Your task to perform on an android device: open app "VLC for Android" (install if not already installed) Image 0: 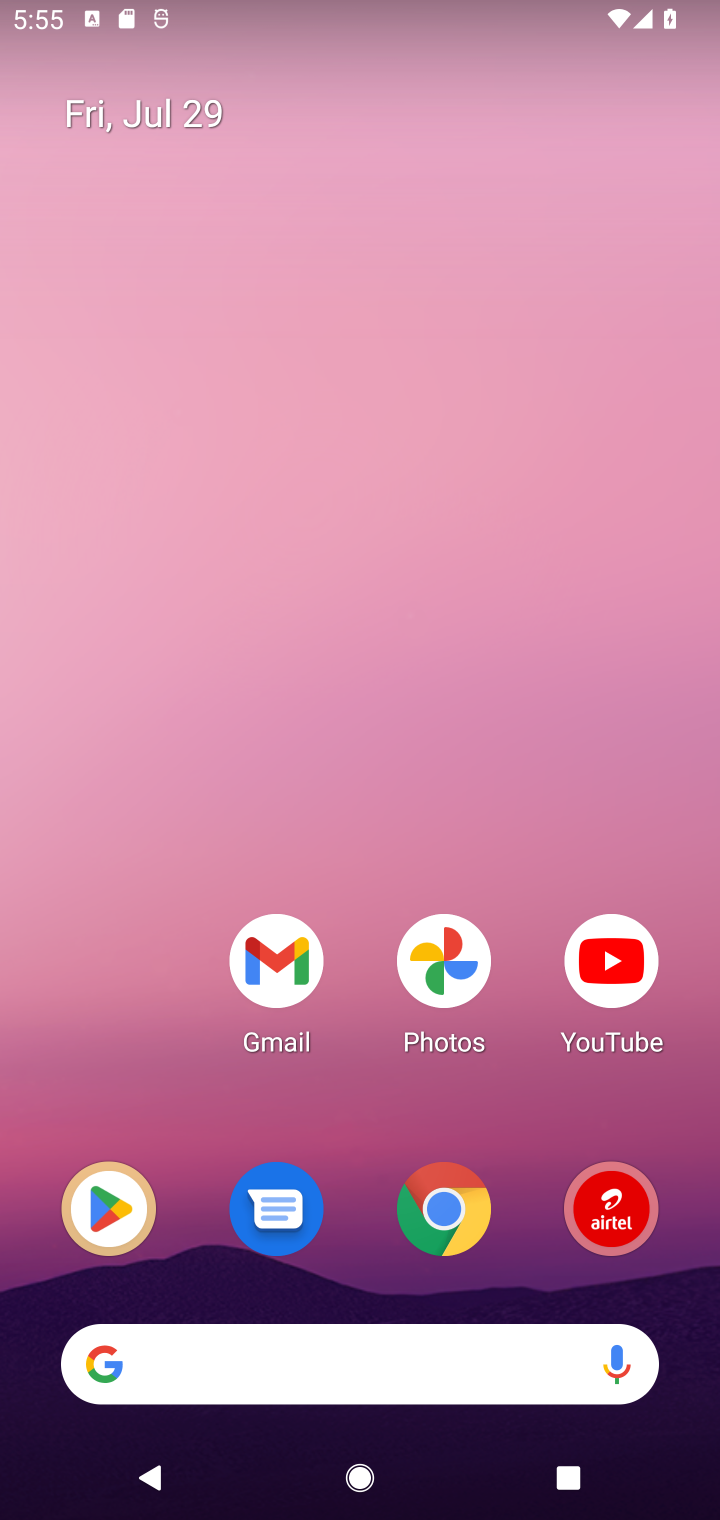
Step 0: click (79, 1223)
Your task to perform on an android device: open app "VLC for Android" (install if not already installed) Image 1: 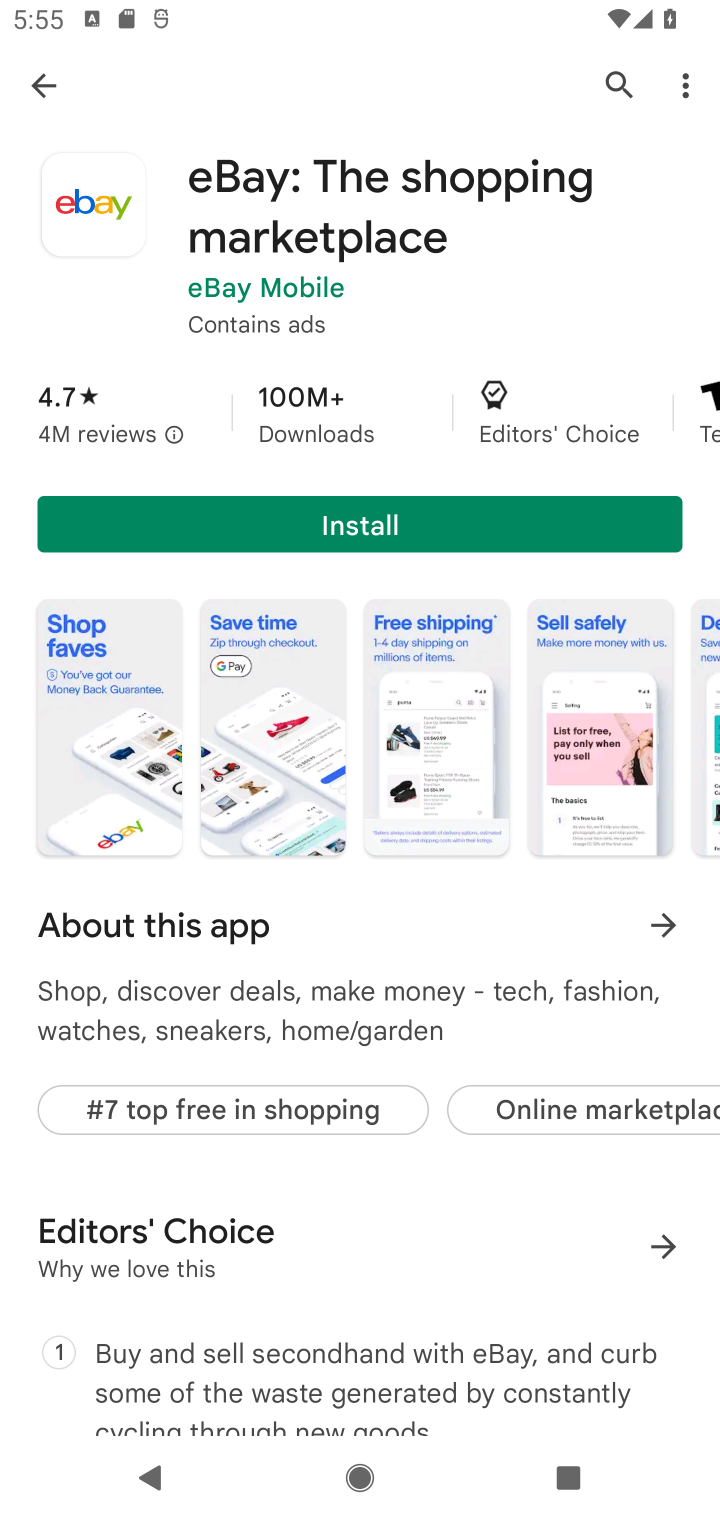
Step 1: click (633, 85)
Your task to perform on an android device: open app "VLC for Android" (install if not already installed) Image 2: 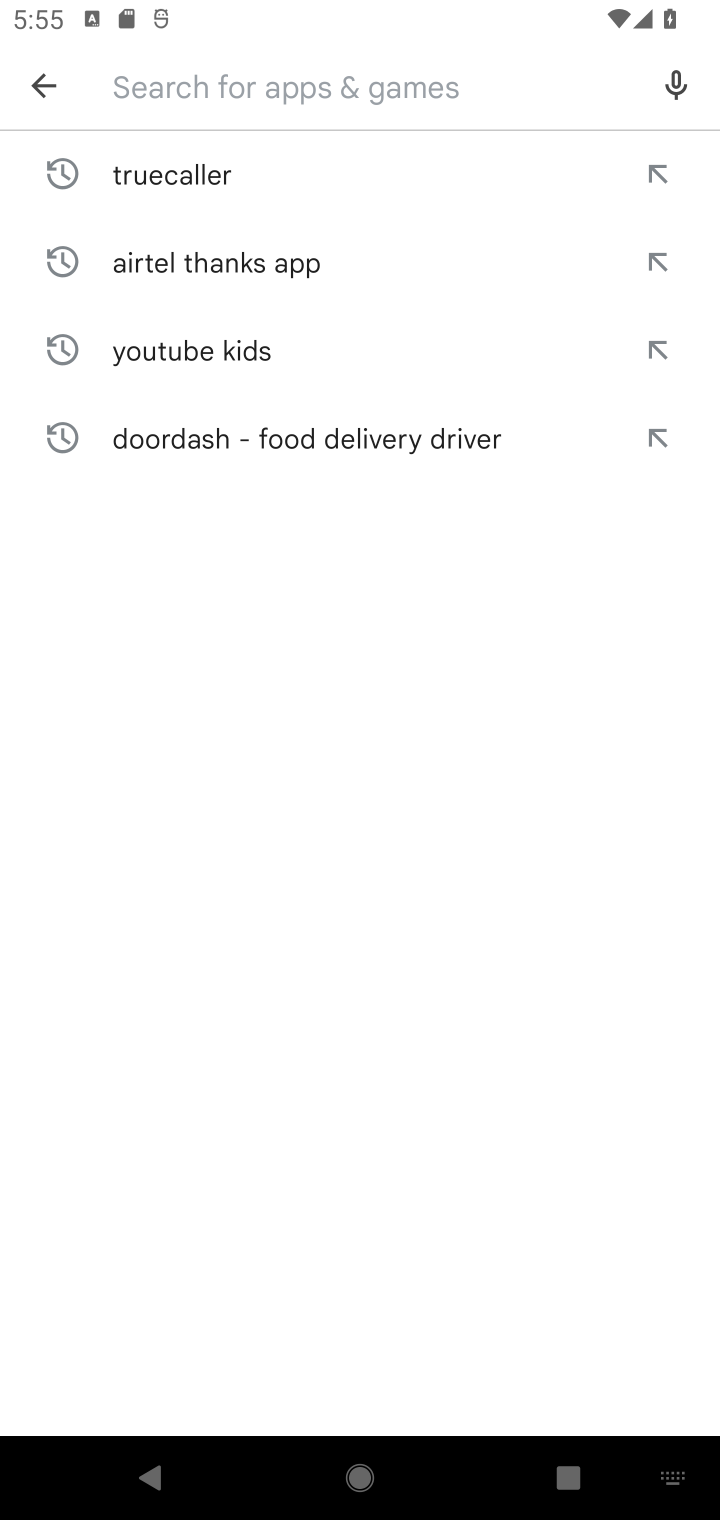
Step 2: type "VLC for Android"
Your task to perform on an android device: open app "VLC for Android" (install if not already installed) Image 3: 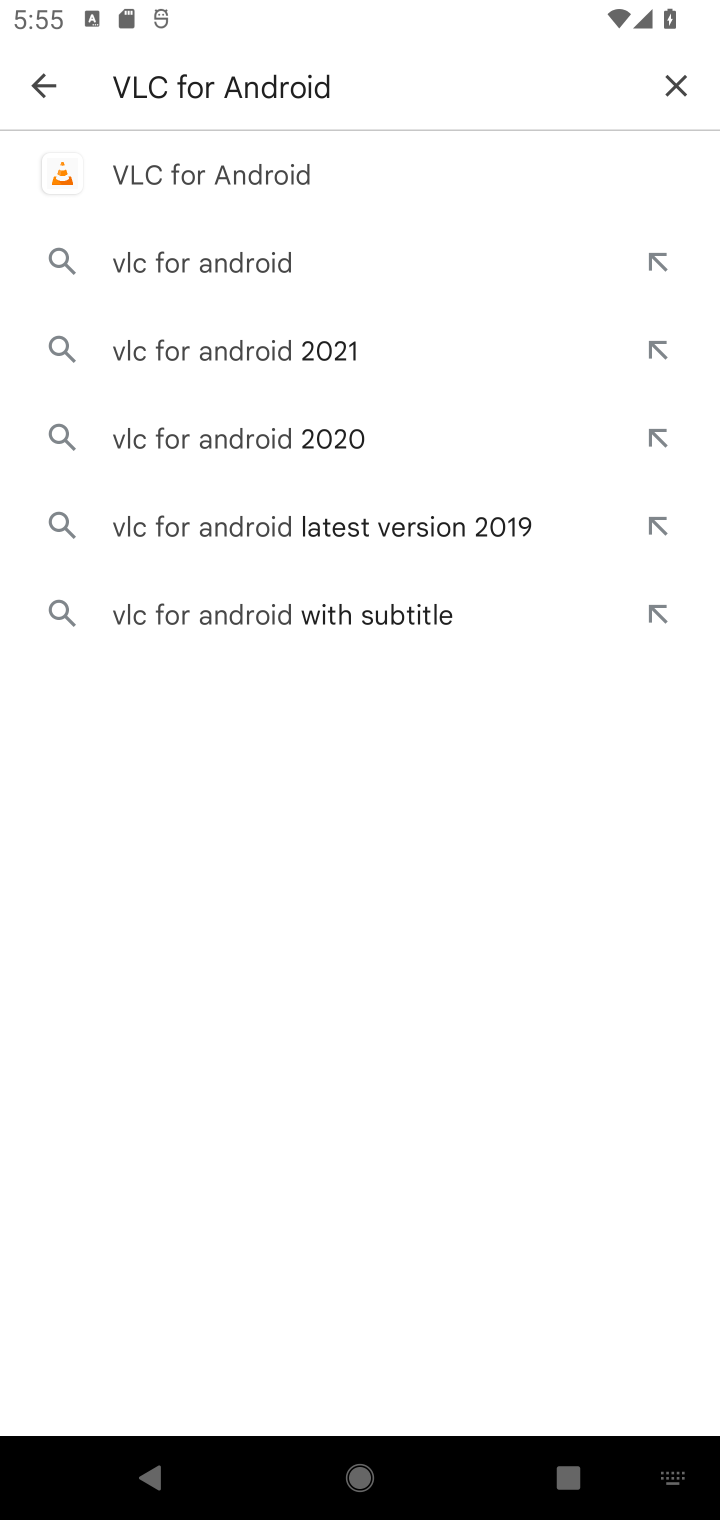
Step 3: click (253, 190)
Your task to perform on an android device: open app "VLC for Android" (install if not already installed) Image 4: 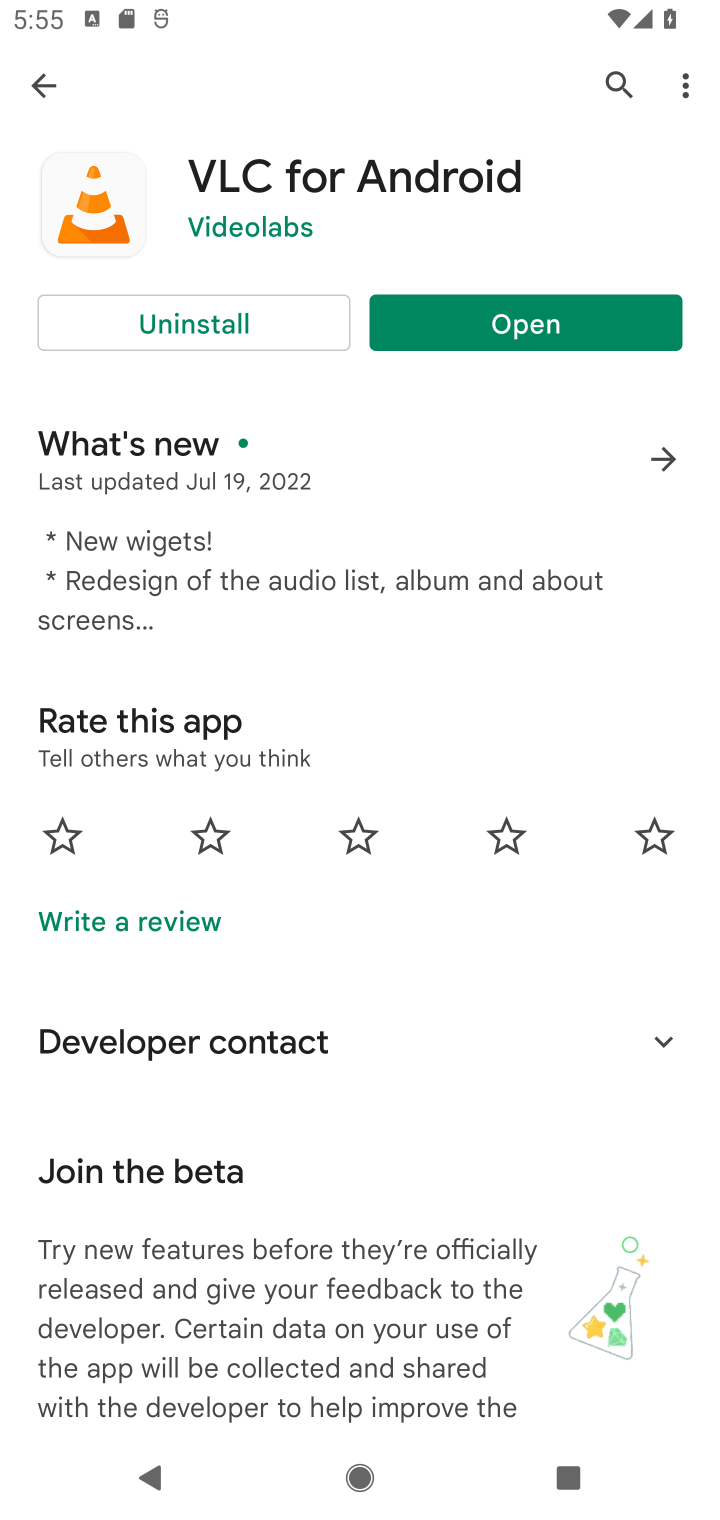
Step 4: click (498, 332)
Your task to perform on an android device: open app "VLC for Android" (install if not already installed) Image 5: 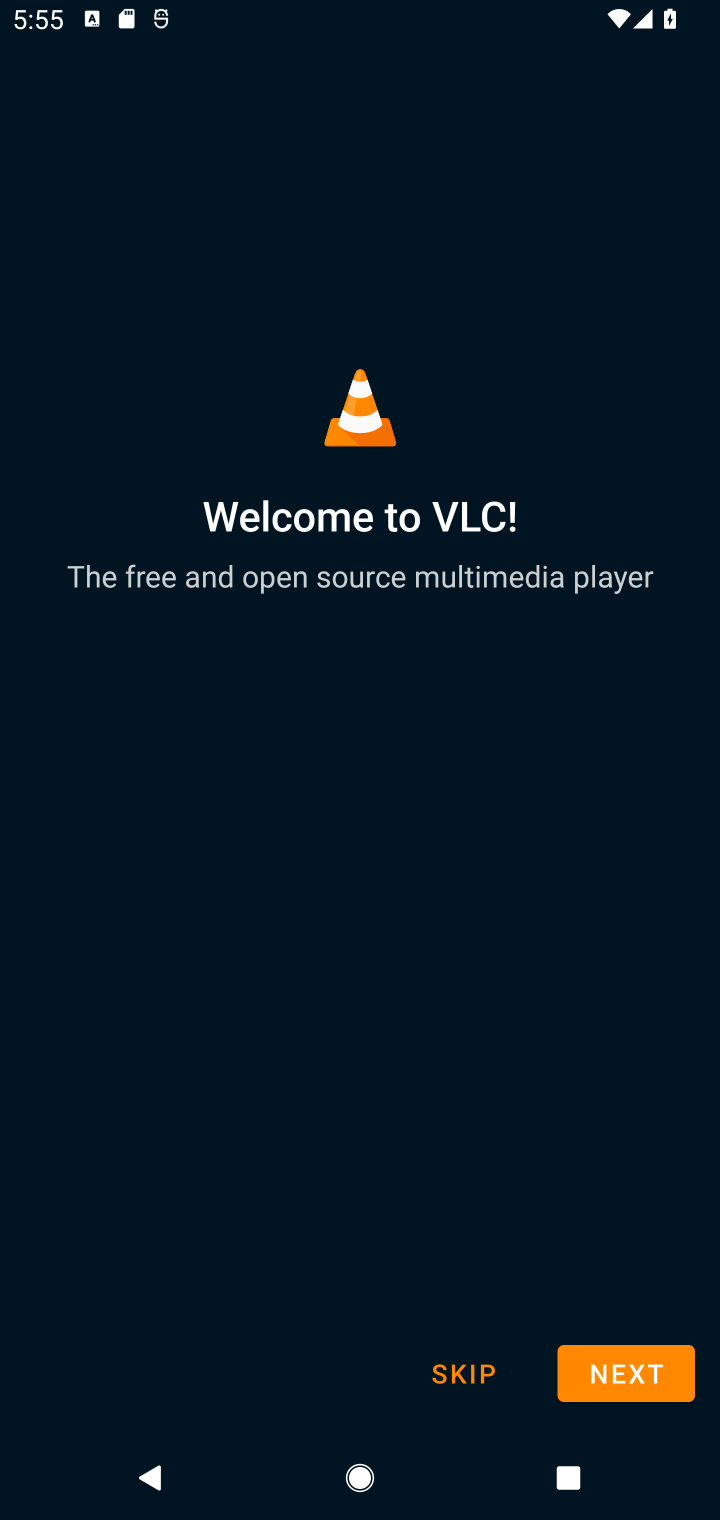
Step 5: task complete